Your task to perform on an android device: turn on showing notifications on the lock screen Image 0: 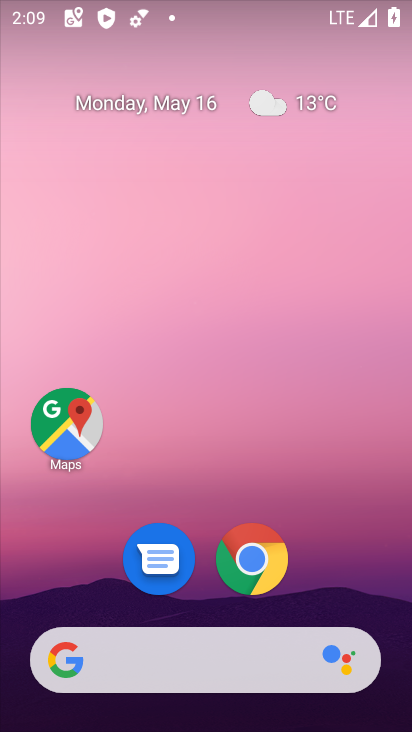
Step 0: drag from (174, 497) to (230, 162)
Your task to perform on an android device: turn on showing notifications on the lock screen Image 1: 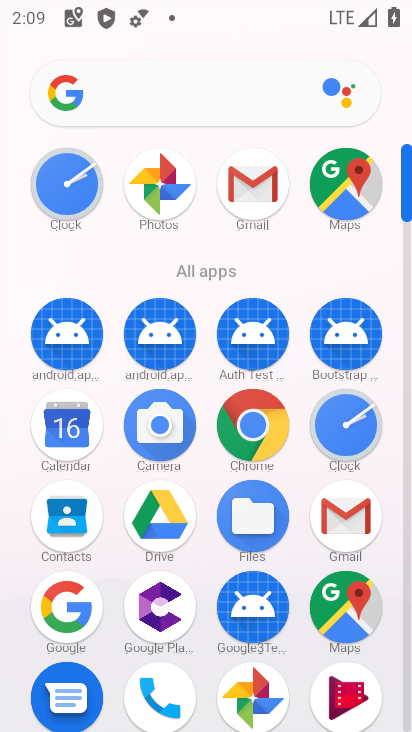
Step 1: drag from (179, 653) to (298, 100)
Your task to perform on an android device: turn on showing notifications on the lock screen Image 2: 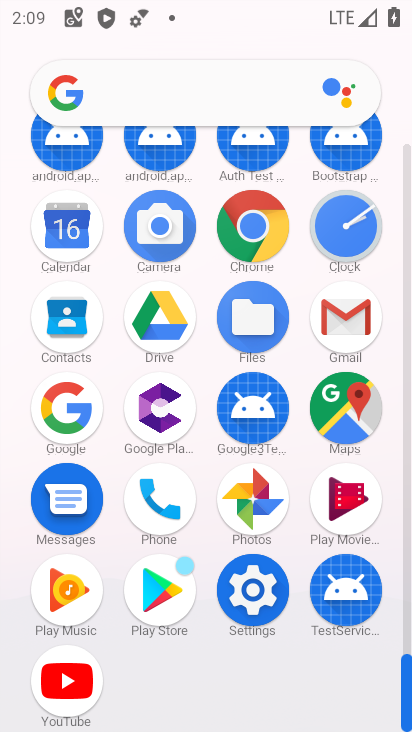
Step 2: click (261, 576)
Your task to perform on an android device: turn on showing notifications on the lock screen Image 3: 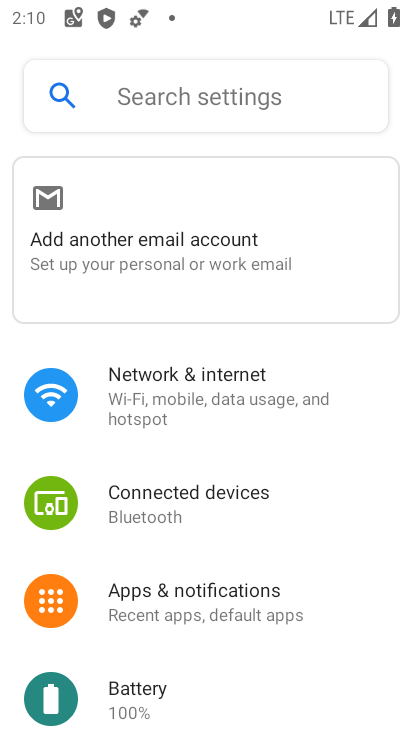
Step 3: click (196, 587)
Your task to perform on an android device: turn on showing notifications on the lock screen Image 4: 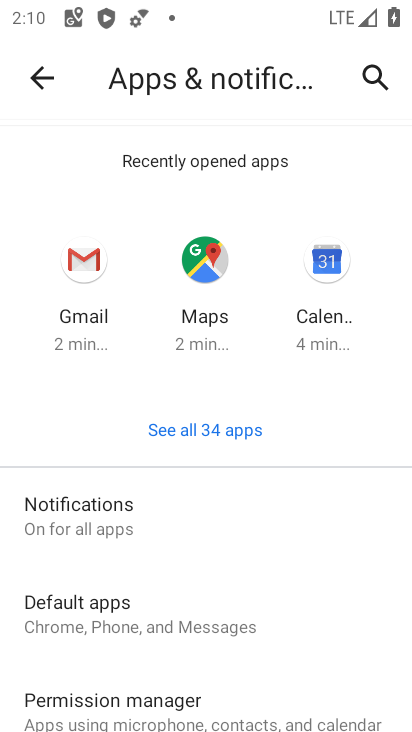
Step 4: click (104, 507)
Your task to perform on an android device: turn on showing notifications on the lock screen Image 5: 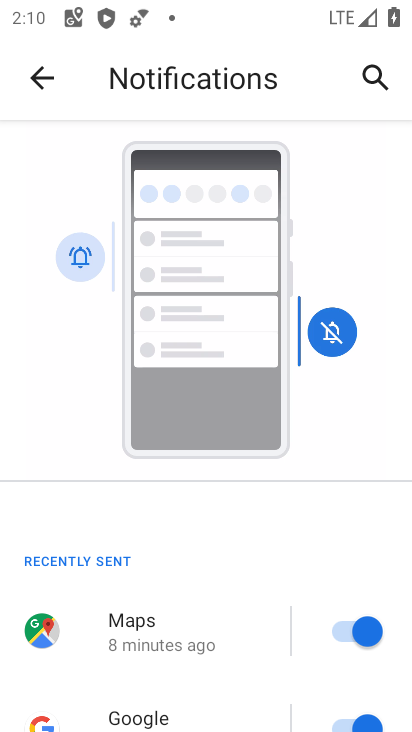
Step 5: drag from (211, 627) to (273, 153)
Your task to perform on an android device: turn on showing notifications on the lock screen Image 6: 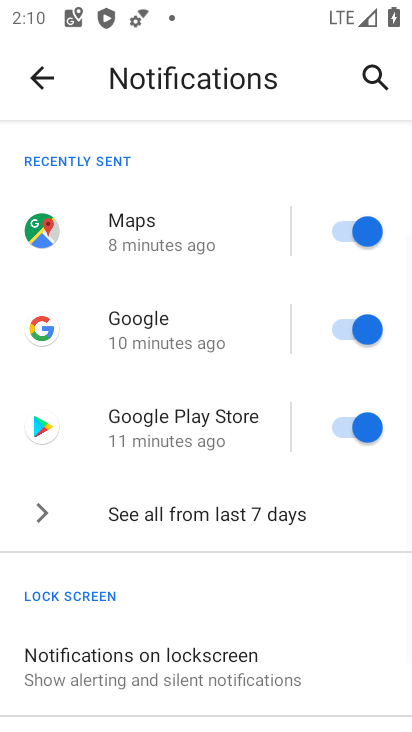
Step 6: drag from (179, 607) to (229, 269)
Your task to perform on an android device: turn on showing notifications on the lock screen Image 7: 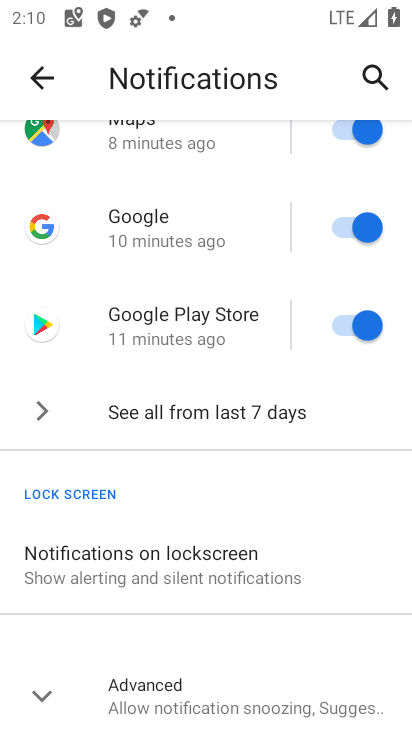
Step 7: click (137, 582)
Your task to perform on an android device: turn on showing notifications on the lock screen Image 8: 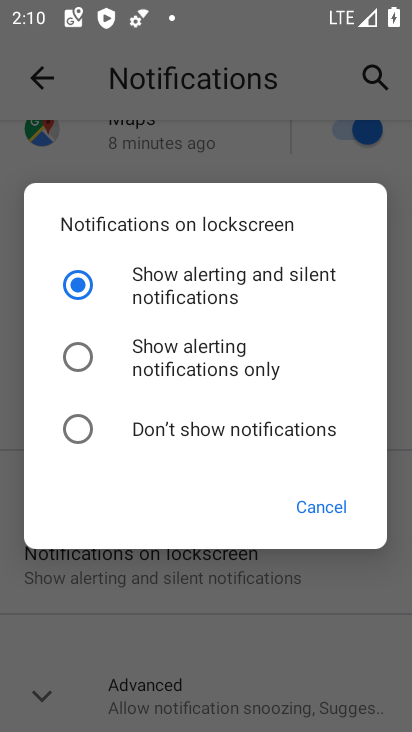
Step 8: click (91, 282)
Your task to perform on an android device: turn on showing notifications on the lock screen Image 9: 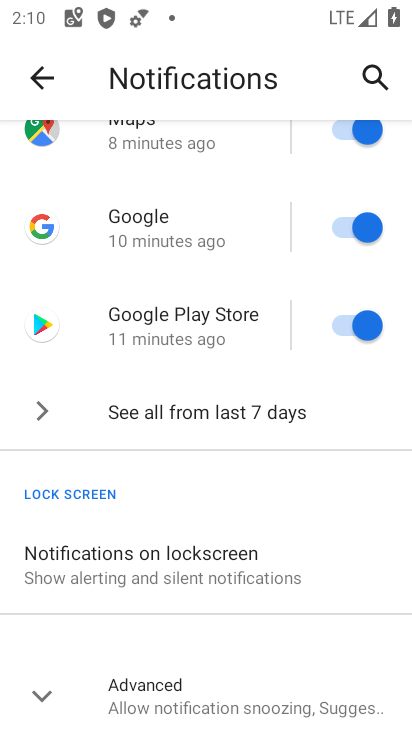
Step 9: task complete